Your task to perform on an android device: Open Yahoo.com Image 0: 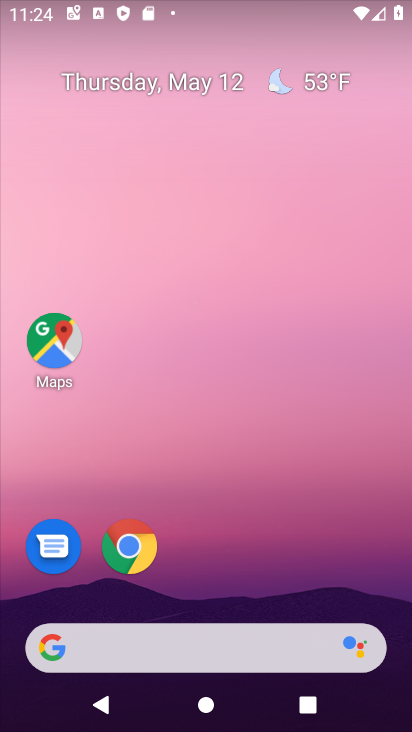
Step 0: drag from (237, 691) to (322, 165)
Your task to perform on an android device: Open Yahoo.com Image 1: 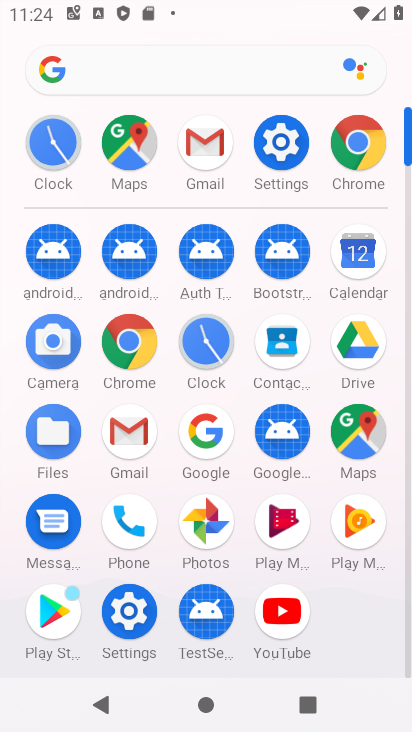
Step 1: click (344, 156)
Your task to perform on an android device: Open Yahoo.com Image 2: 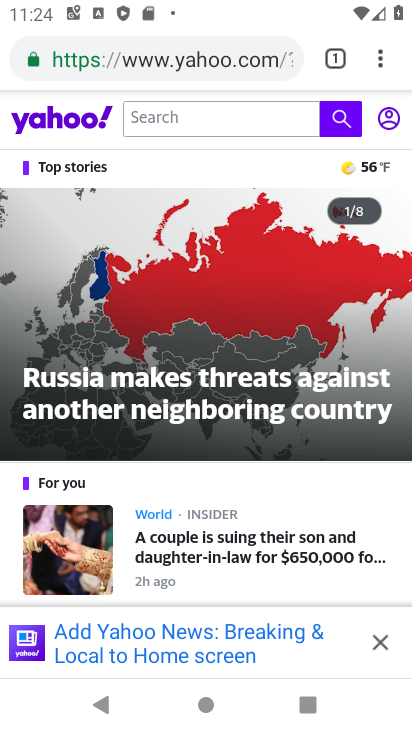
Step 2: task complete